Your task to perform on an android device: turn on the 24-hour format for clock Image 0: 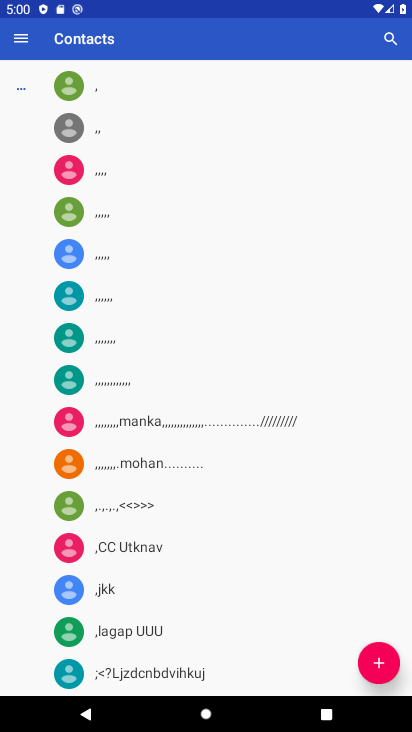
Step 0: press back button
Your task to perform on an android device: turn on the 24-hour format for clock Image 1: 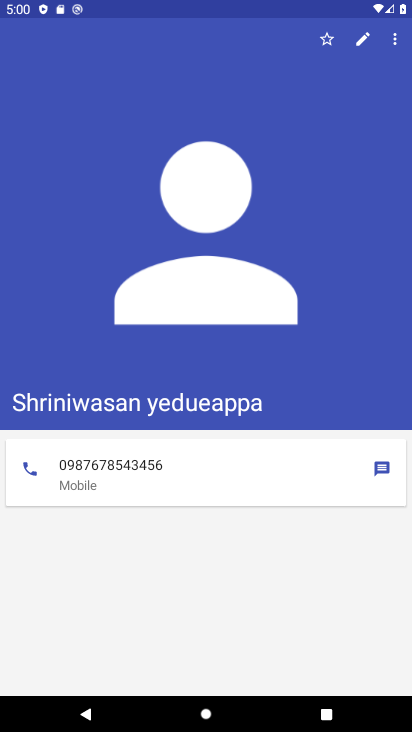
Step 1: press back button
Your task to perform on an android device: turn on the 24-hour format for clock Image 2: 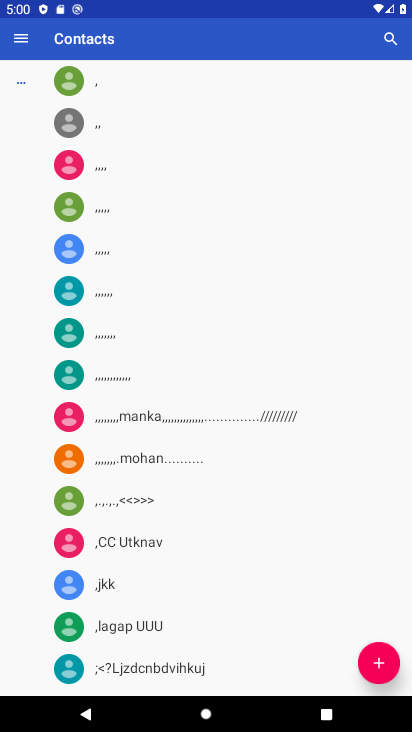
Step 2: press back button
Your task to perform on an android device: turn on the 24-hour format for clock Image 3: 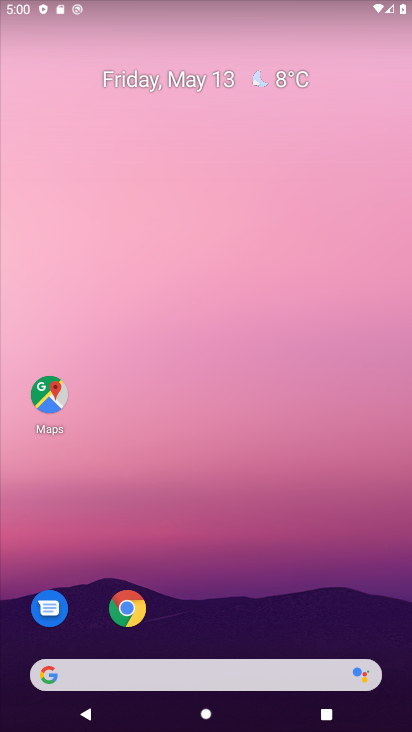
Step 3: drag from (295, 513) to (200, 8)
Your task to perform on an android device: turn on the 24-hour format for clock Image 4: 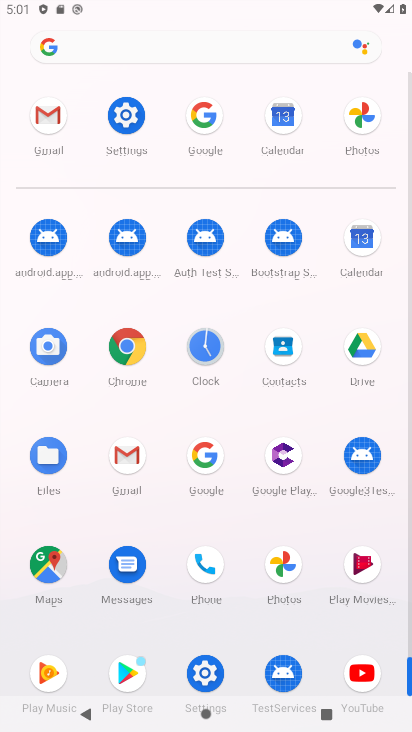
Step 4: click (206, 349)
Your task to perform on an android device: turn on the 24-hour format for clock Image 5: 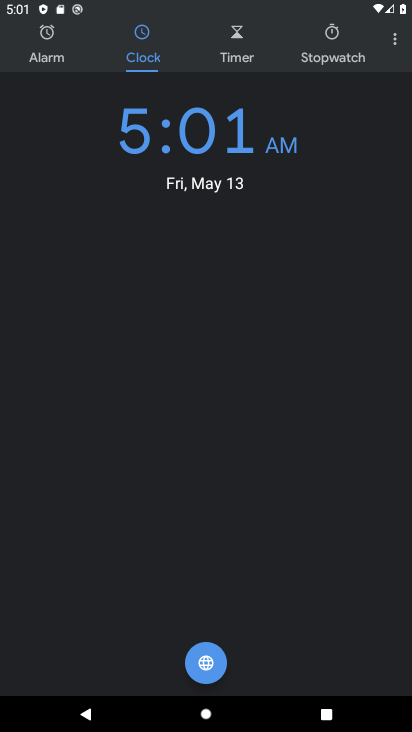
Step 5: click (394, 41)
Your task to perform on an android device: turn on the 24-hour format for clock Image 6: 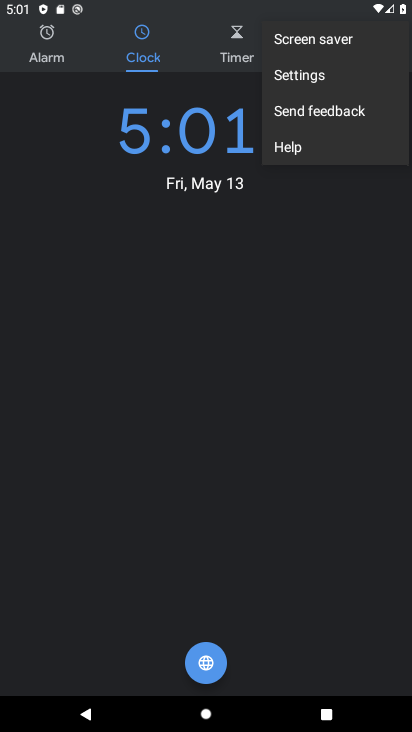
Step 6: click (286, 81)
Your task to perform on an android device: turn on the 24-hour format for clock Image 7: 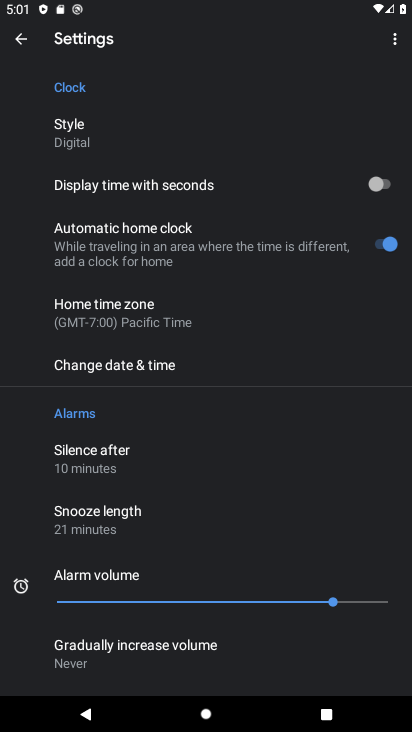
Step 7: click (139, 369)
Your task to perform on an android device: turn on the 24-hour format for clock Image 8: 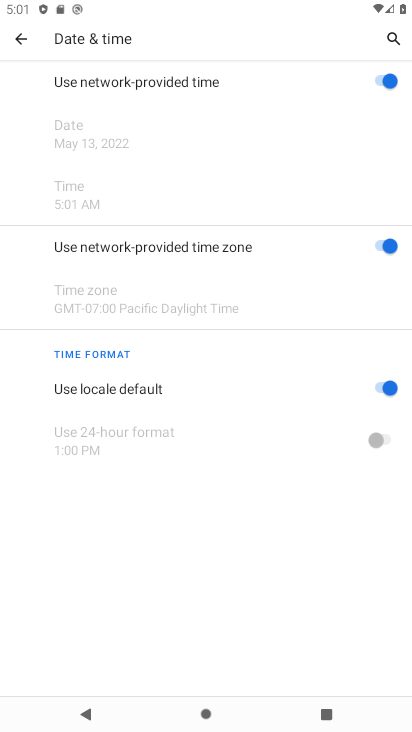
Step 8: click (391, 390)
Your task to perform on an android device: turn on the 24-hour format for clock Image 9: 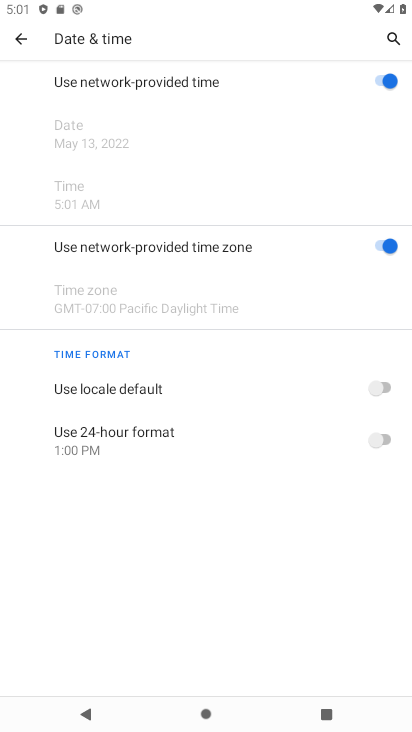
Step 9: click (384, 440)
Your task to perform on an android device: turn on the 24-hour format for clock Image 10: 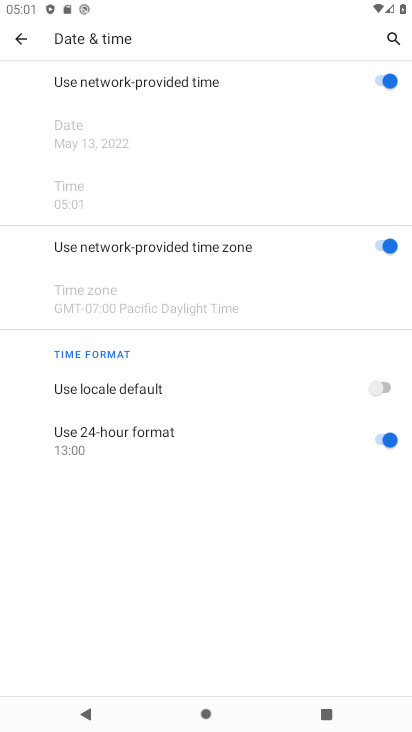
Step 10: task complete